Your task to perform on an android device: turn off notifications settings in the gmail app Image 0: 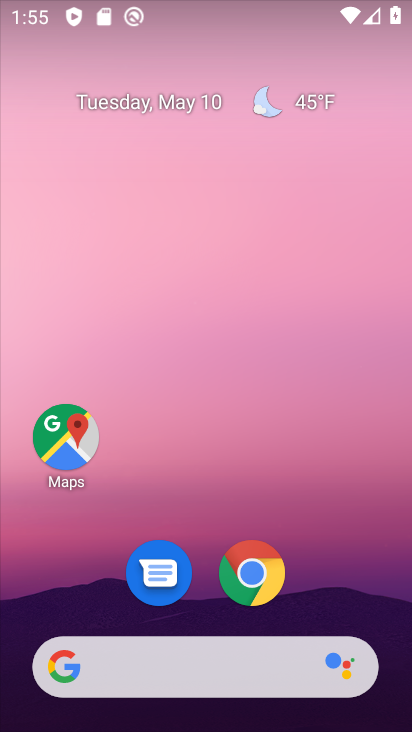
Step 0: drag from (200, 620) to (252, 149)
Your task to perform on an android device: turn off notifications settings in the gmail app Image 1: 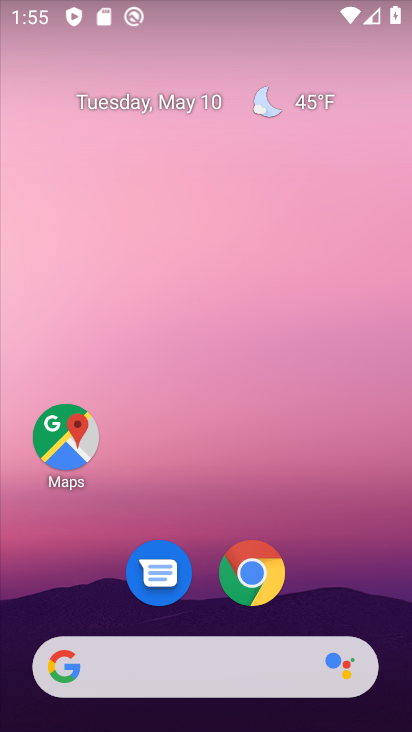
Step 1: drag from (206, 600) to (231, 61)
Your task to perform on an android device: turn off notifications settings in the gmail app Image 2: 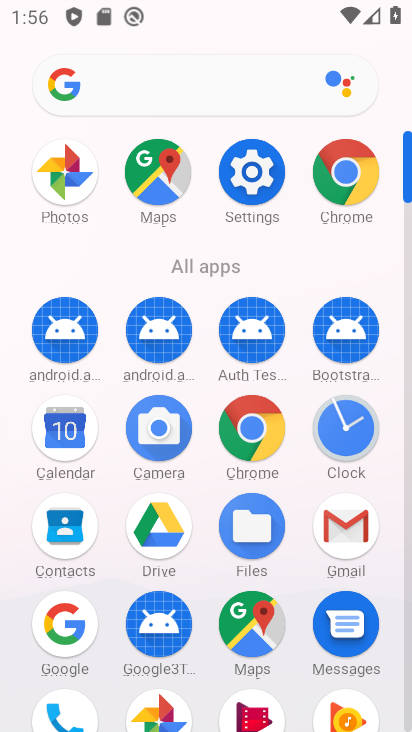
Step 2: click (348, 526)
Your task to perform on an android device: turn off notifications settings in the gmail app Image 3: 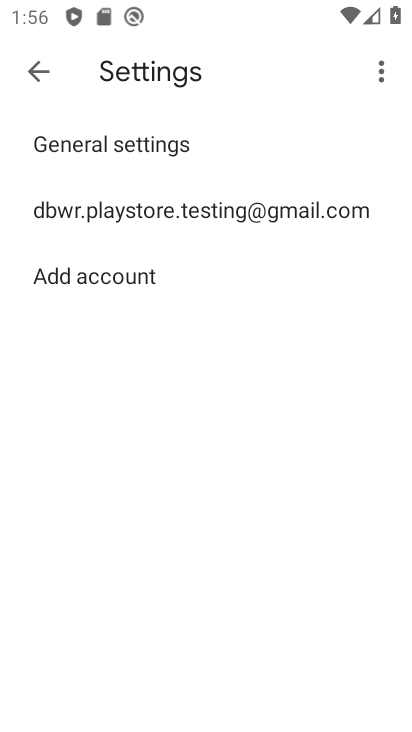
Step 3: click (127, 143)
Your task to perform on an android device: turn off notifications settings in the gmail app Image 4: 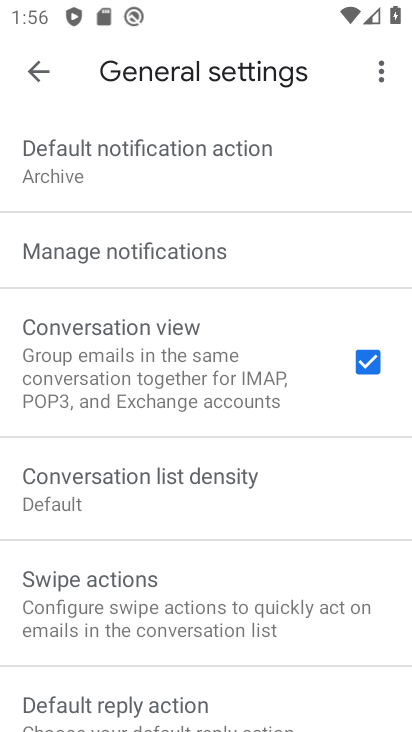
Step 4: click (156, 260)
Your task to perform on an android device: turn off notifications settings in the gmail app Image 5: 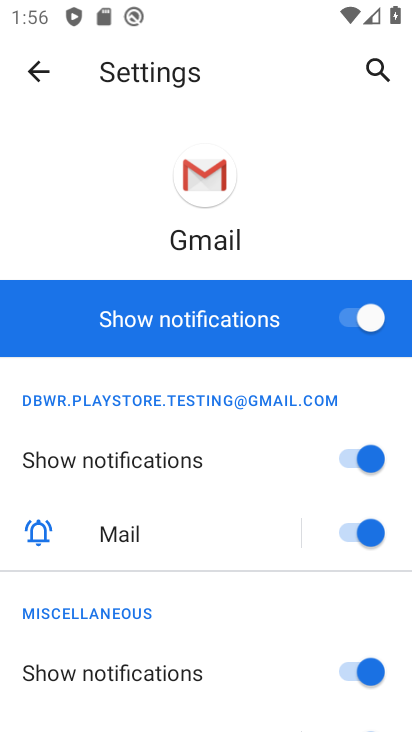
Step 5: click (330, 319)
Your task to perform on an android device: turn off notifications settings in the gmail app Image 6: 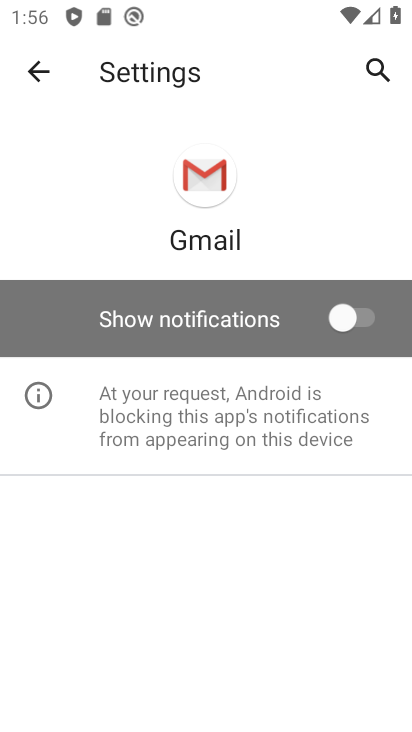
Step 6: task complete